Your task to perform on an android device: Is it going to rain this weekend? Image 0: 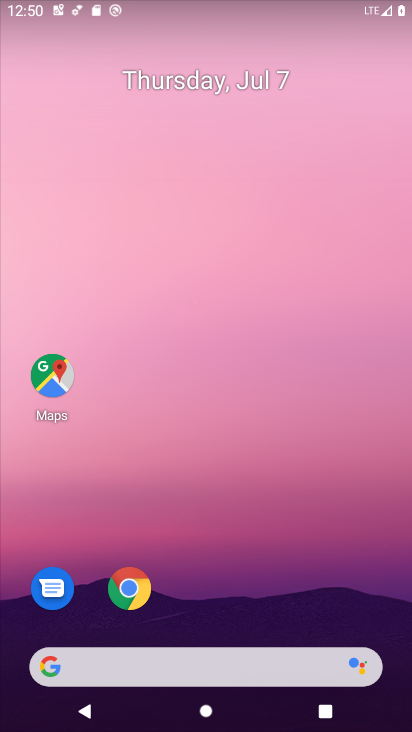
Step 0: drag from (187, 606) to (401, 53)
Your task to perform on an android device: Is it going to rain this weekend? Image 1: 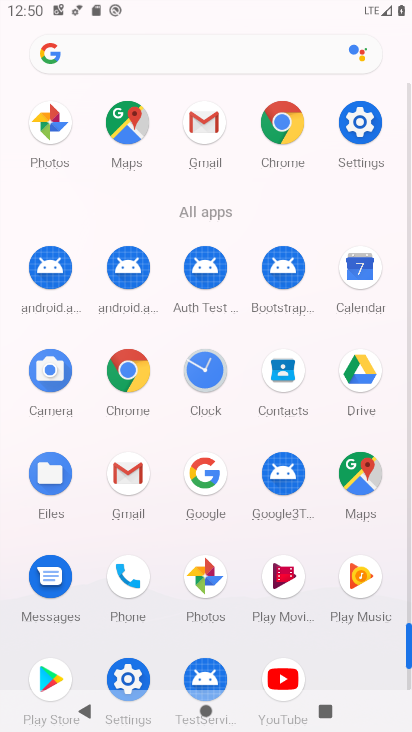
Step 1: drag from (166, 618) to (223, 138)
Your task to perform on an android device: Is it going to rain this weekend? Image 2: 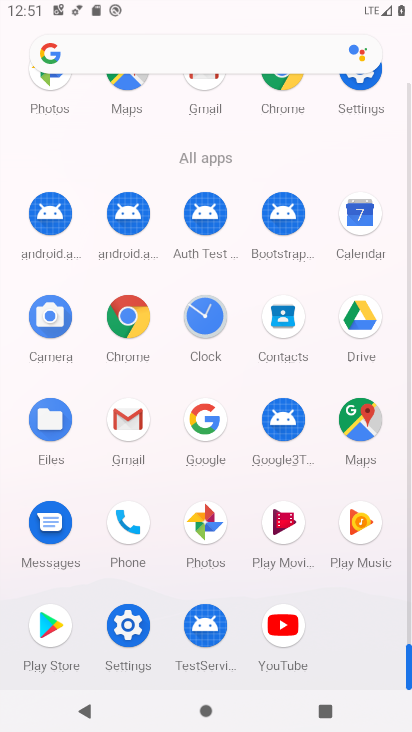
Step 2: click (367, 206)
Your task to perform on an android device: Is it going to rain this weekend? Image 3: 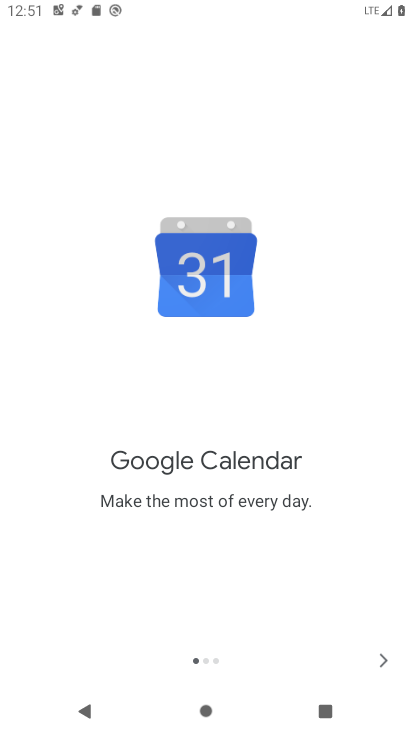
Step 3: press home button
Your task to perform on an android device: Is it going to rain this weekend? Image 4: 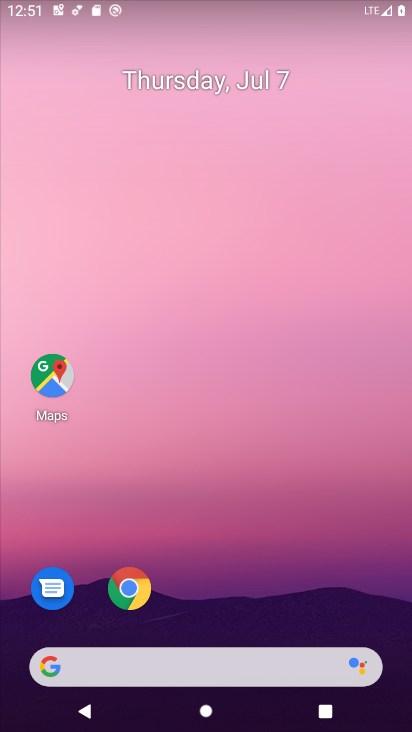
Step 4: drag from (295, 374) to (304, 187)
Your task to perform on an android device: Is it going to rain this weekend? Image 5: 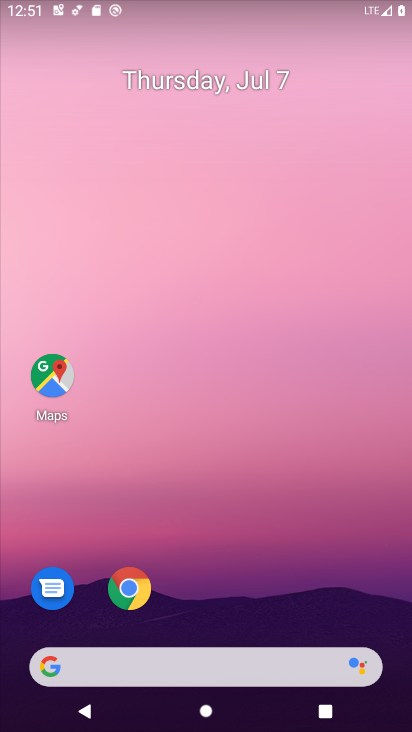
Step 5: drag from (189, 613) to (281, 95)
Your task to perform on an android device: Is it going to rain this weekend? Image 6: 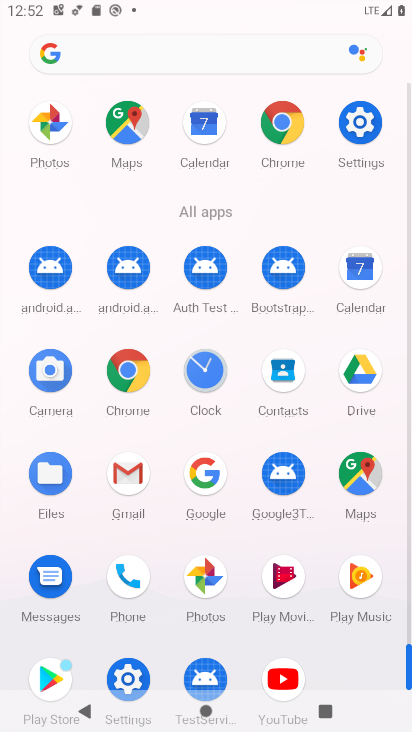
Step 6: click (139, 41)
Your task to perform on an android device: Is it going to rain this weekend? Image 7: 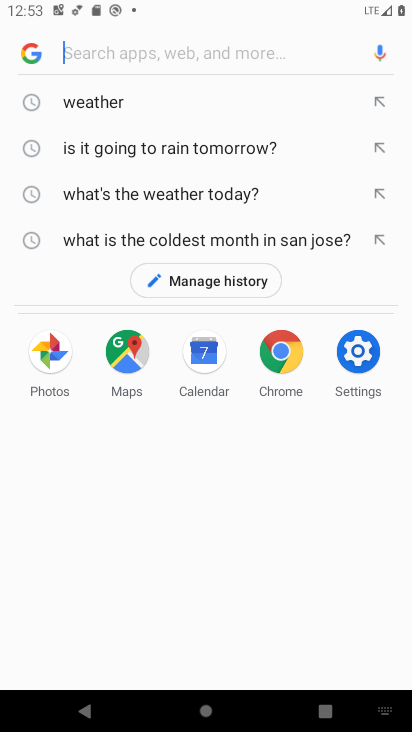
Step 7: click (102, 51)
Your task to perform on an android device: Is it going to rain this weekend? Image 8: 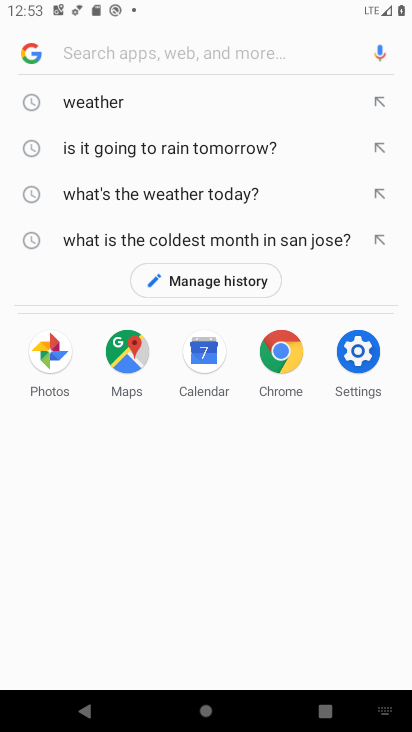
Step 8: type "rain this weekend"
Your task to perform on an android device: Is it going to rain this weekend? Image 9: 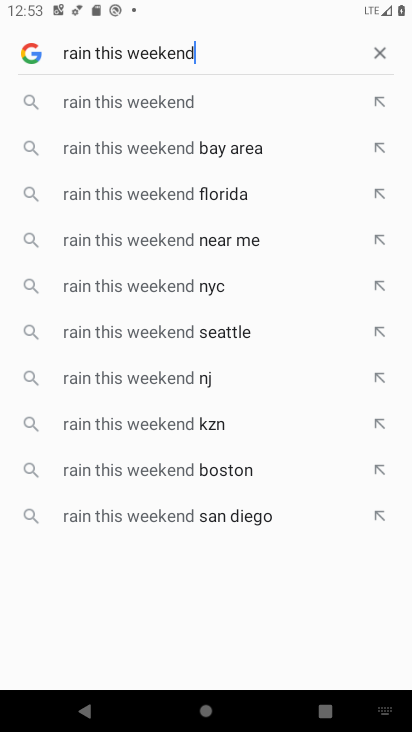
Step 9: click (175, 96)
Your task to perform on an android device: Is it going to rain this weekend? Image 10: 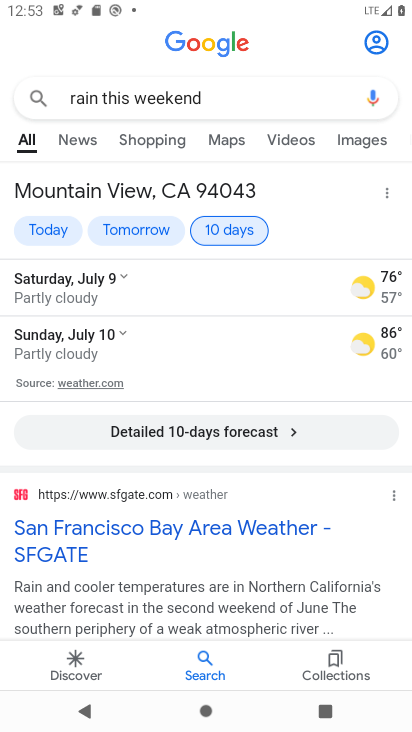
Step 10: task complete